Your task to perform on an android device: check android version Image 0: 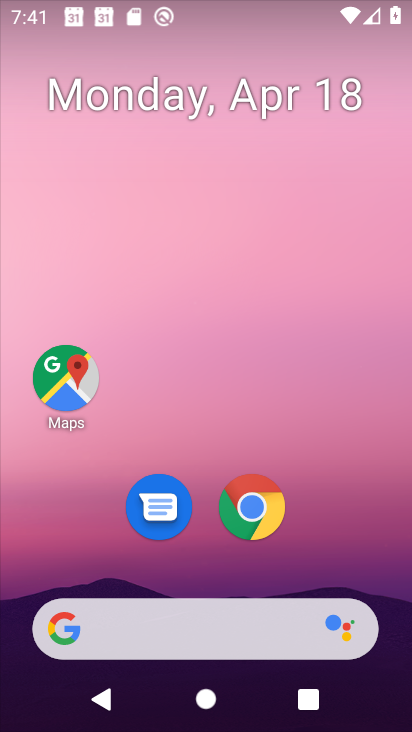
Step 0: drag from (6, 499) to (110, 409)
Your task to perform on an android device: check android version Image 1: 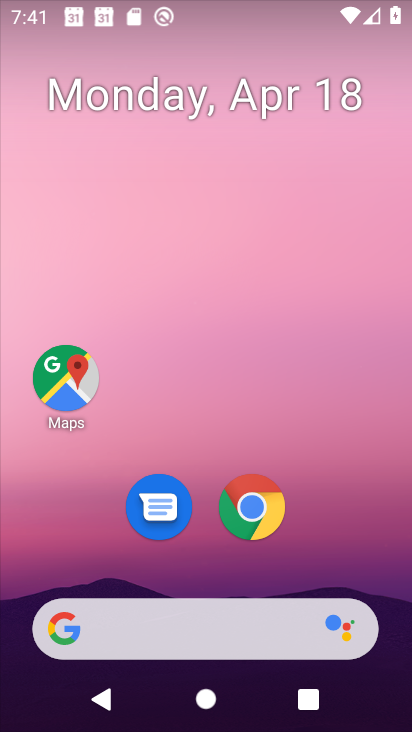
Step 1: click (256, 65)
Your task to perform on an android device: check android version Image 2: 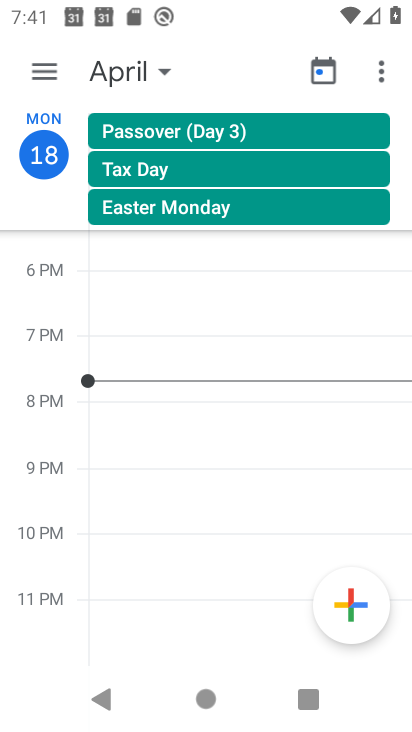
Step 2: press home button
Your task to perform on an android device: check android version Image 3: 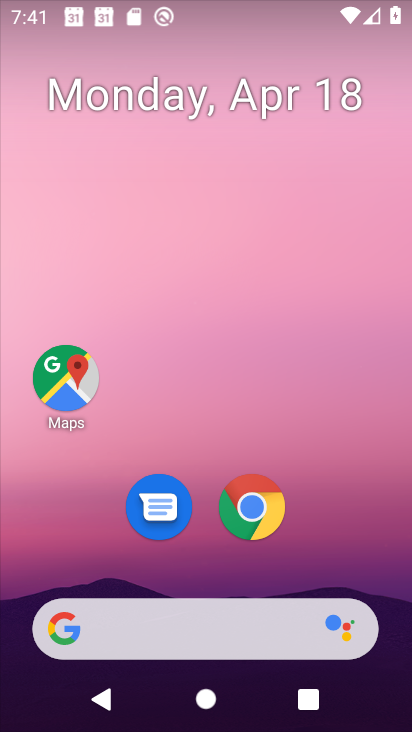
Step 3: drag from (3, 520) to (208, 163)
Your task to perform on an android device: check android version Image 4: 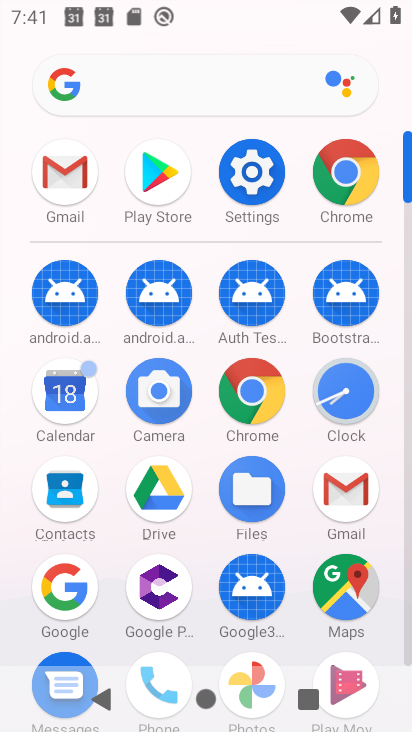
Step 4: click (253, 189)
Your task to perform on an android device: check android version Image 5: 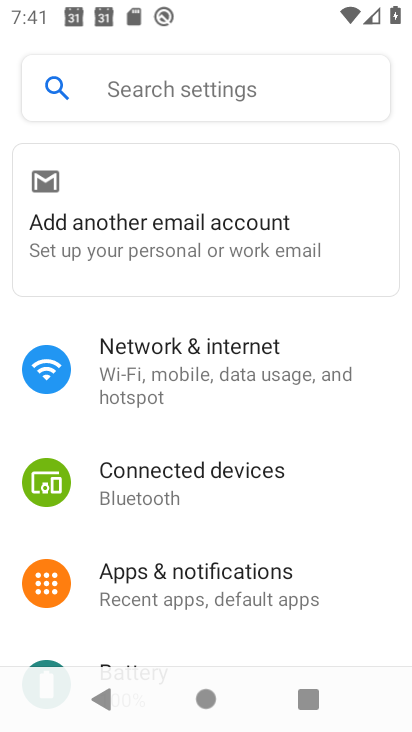
Step 5: drag from (190, 583) to (245, 94)
Your task to perform on an android device: check android version Image 6: 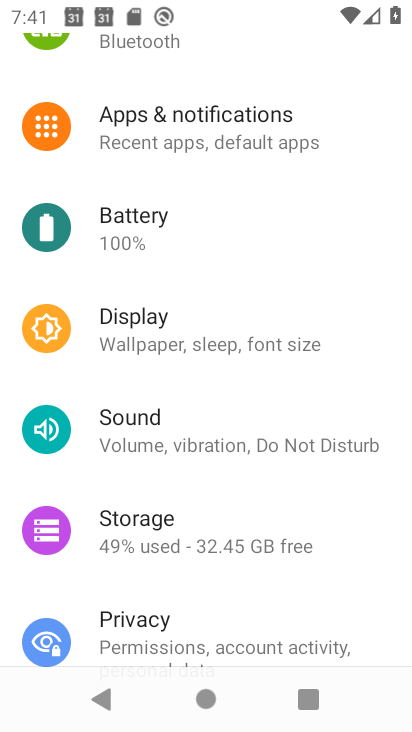
Step 6: drag from (72, 608) to (172, 75)
Your task to perform on an android device: check android version Image 7: 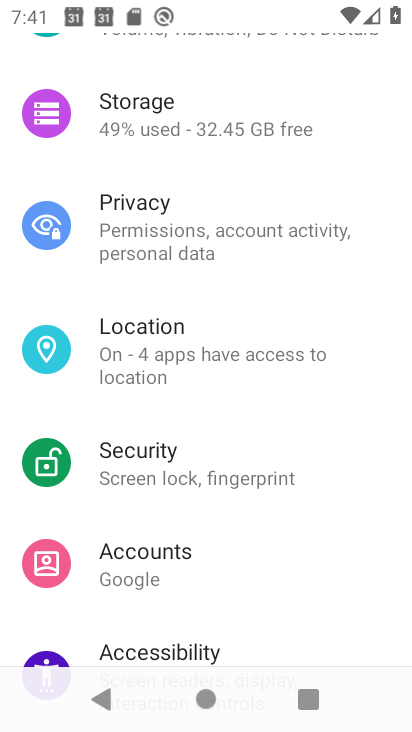
Step 7: drag from (119, 540) to (198, 89)
Your task to perform on an android device: check android version Image 8: 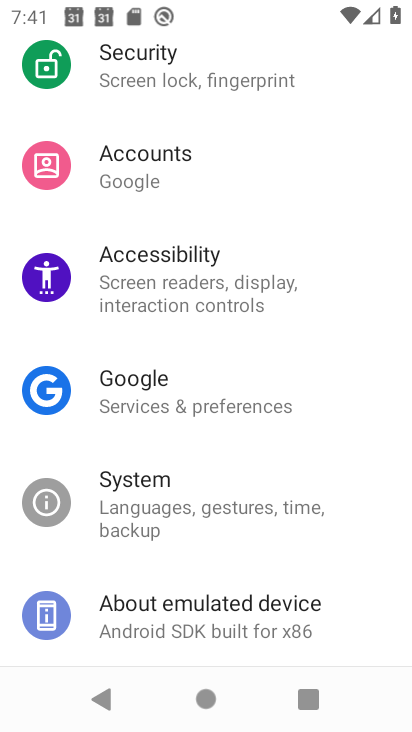
Step 8: click (184, 629)
Your task to perform on an android device: check android version Image 9: 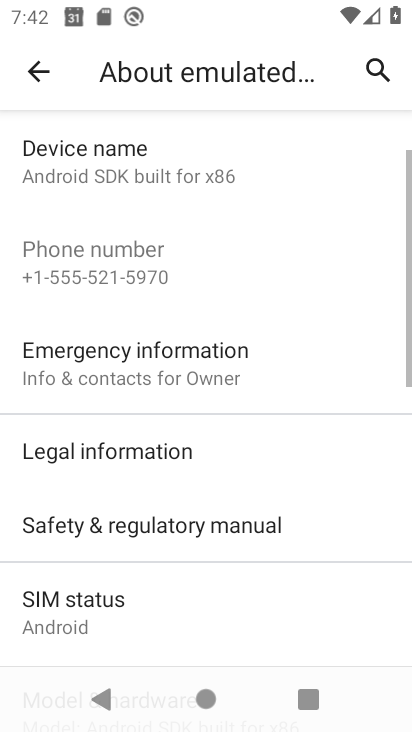
Step 9: drag from (135, 582) to (248, 161)
Your task to perform on an android device: check android version Image 10: 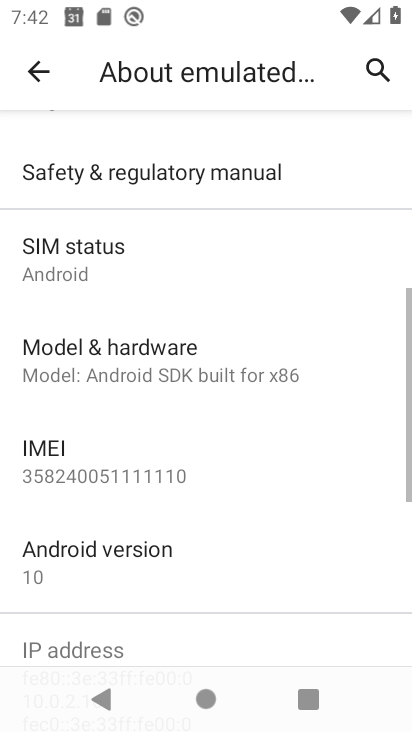
Step 10: click (130, 576)
Your task to perform on an android device: check android version Image 11: 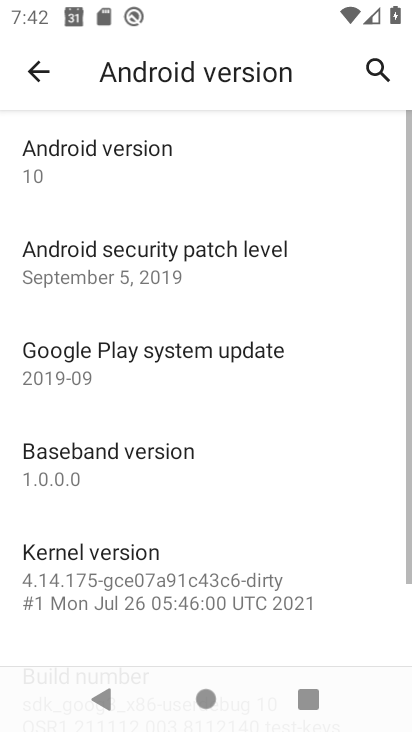
Step 11: click (296, 150)
Your task to perform on an android device: check android version Image 12: 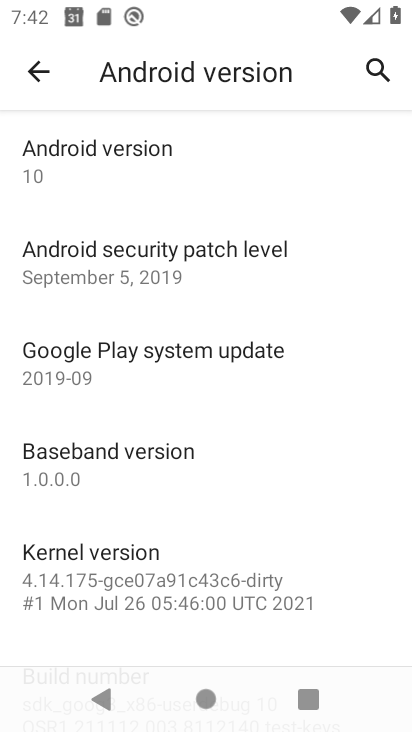
Step 12: task complete